Your task to perform on an android device: set the stopwatch Image 0: 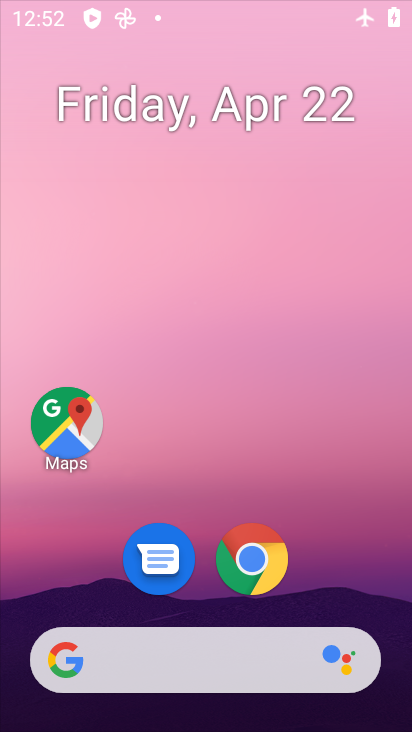
Step 0: drag from (381, 310) to (383, 197)
Your task to perform on an android device: set the stopwatch Image 1: 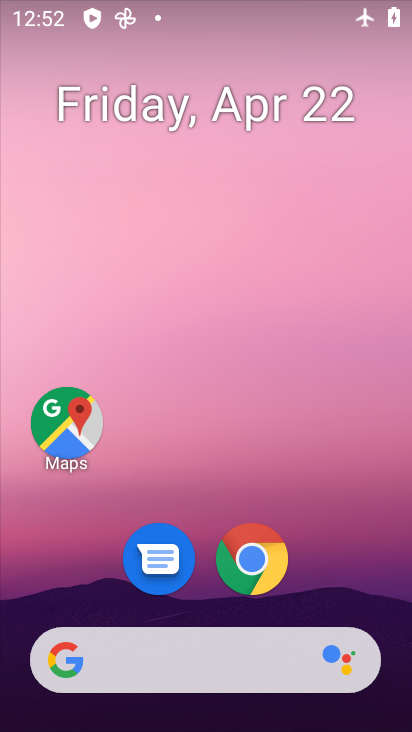
Step 1: drag from (326, 571) to (346, 141)
Your task to perform on an android device: set the stopwatch Image 2: 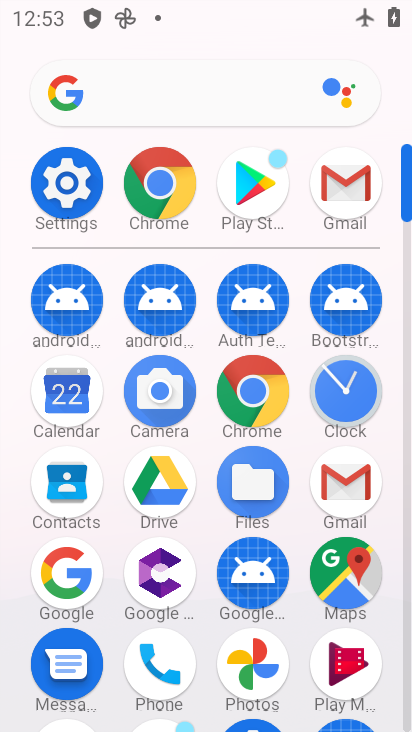
Step 2: click (355, 389)
Your task to perform on an android device: set the stopwatch Image 3: 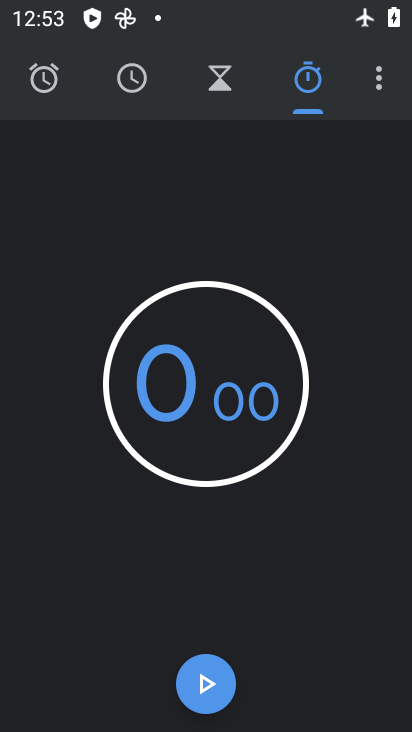
Step 3: click (206, 674)
Your task to perform on an android device: set the stopwatch Image 4: 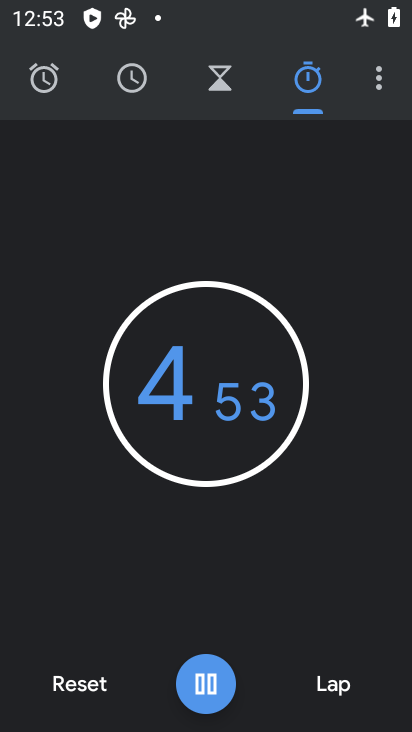
Step 4: task complete